Your task to perform on an android device: toggle translation in the chrome app Image 0: 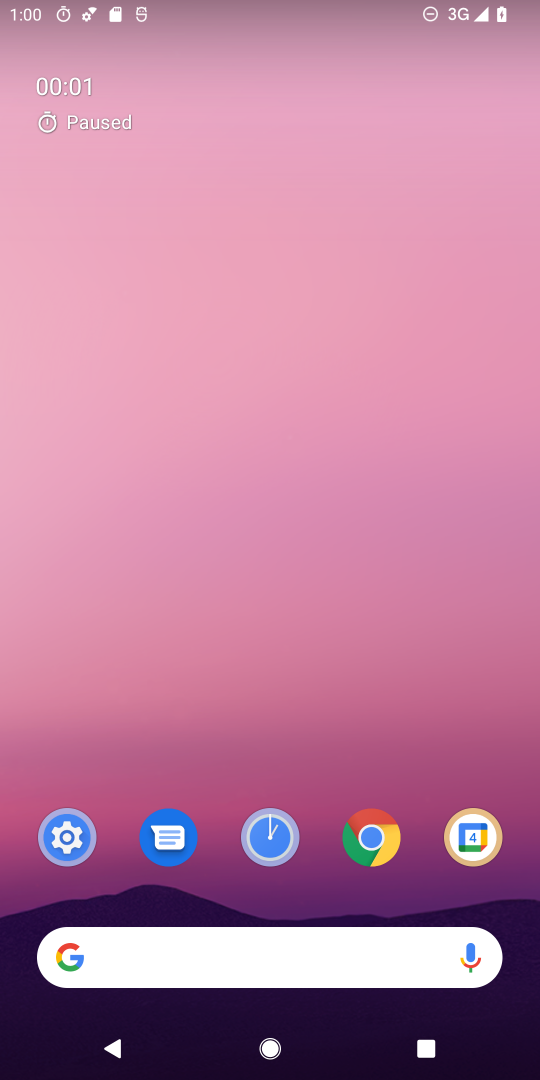
Step 0: drag from (465, 913) to (233, 28)
Your task to perform on an android device: toggle translation in the chrome app Image 1: 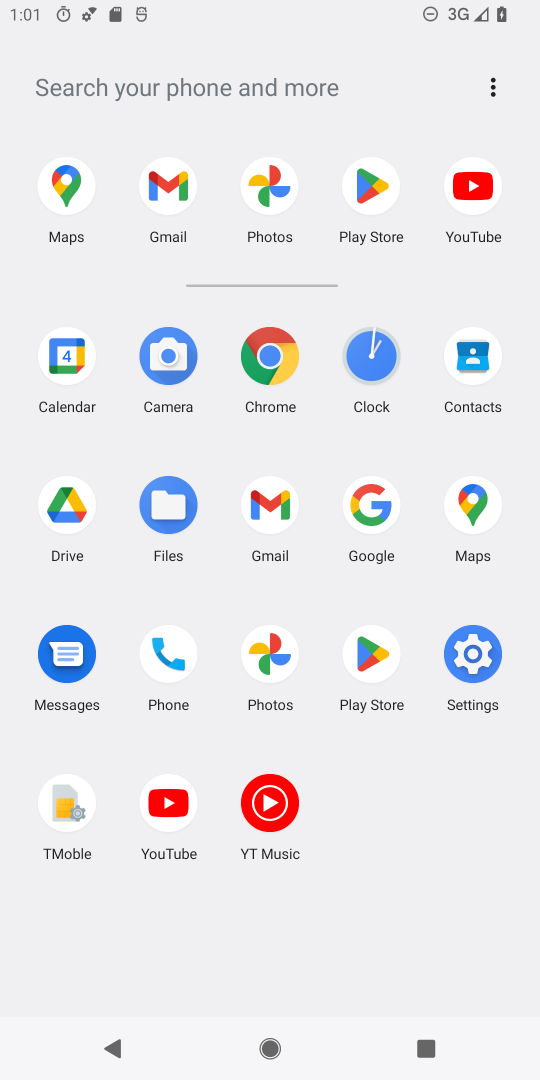
Step 1: click (259, 381)
Your task to perform on an android device: toggle translation in the chrome app Image 2: 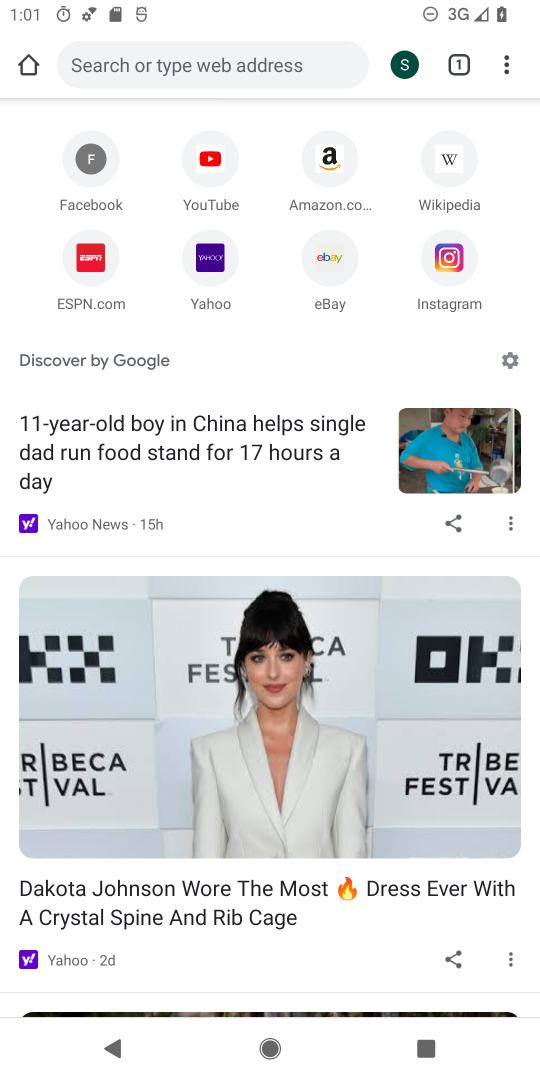
Step 2: click (495, 71)
Your task to perform on an android device: toggle translation in the chrome app Image 3: 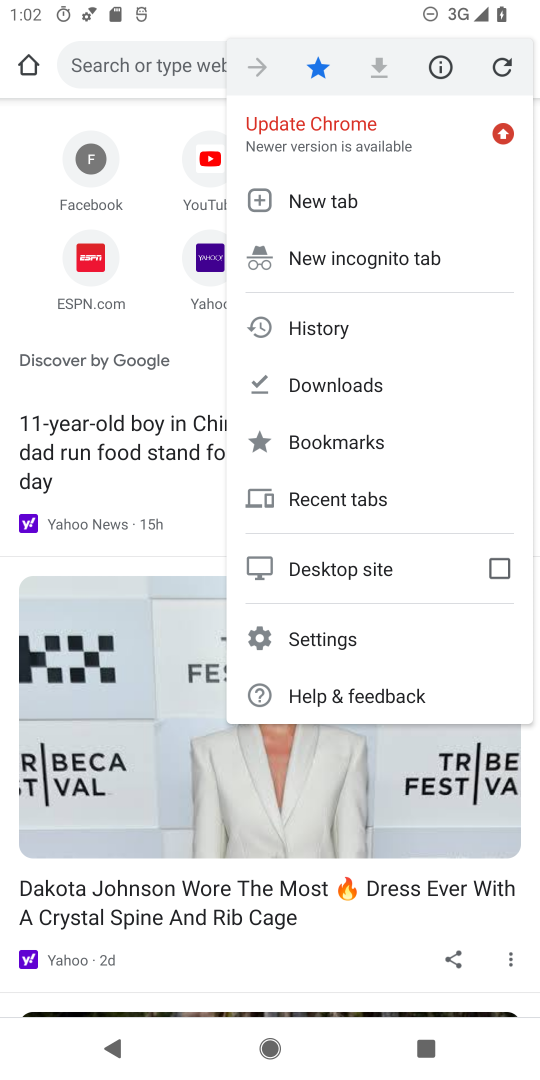
Step 3: click (335, 655)
Your task to perform on an android device: toggle translation in the chrome app Image 4: 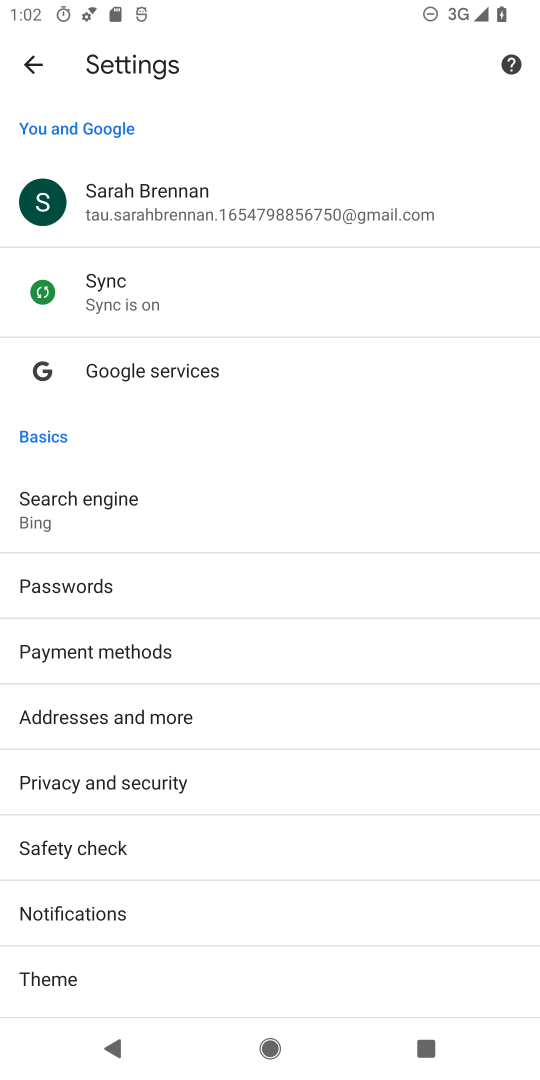
Step 4: drag from (133, 881) to (196, 374)
Your task to perform on an android device: toggle translation in the chrome app Image 5: 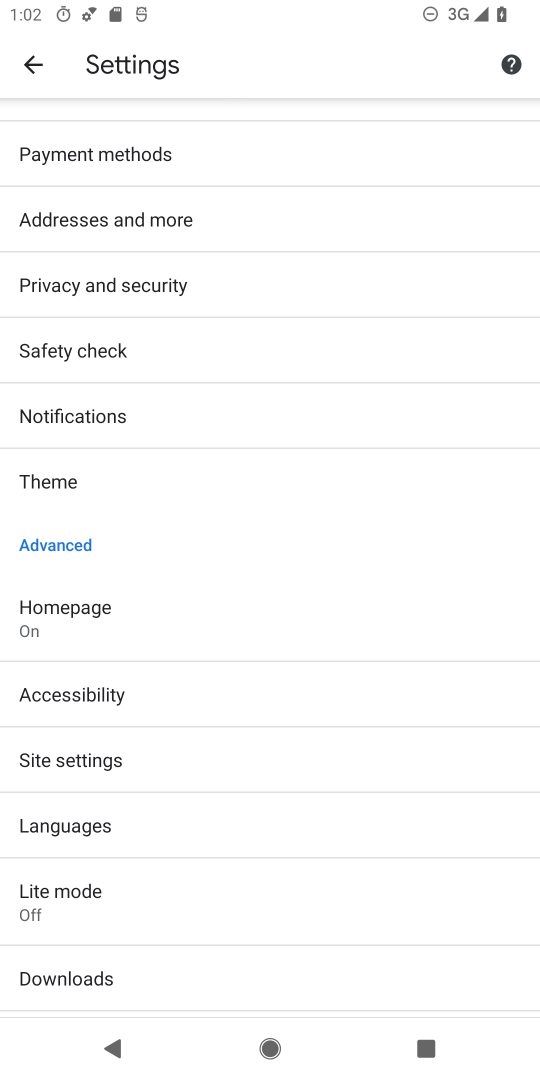
Step 5: click (147, 826)
Your task to perform on an android device: toggle translation in the chrome app Image 6: 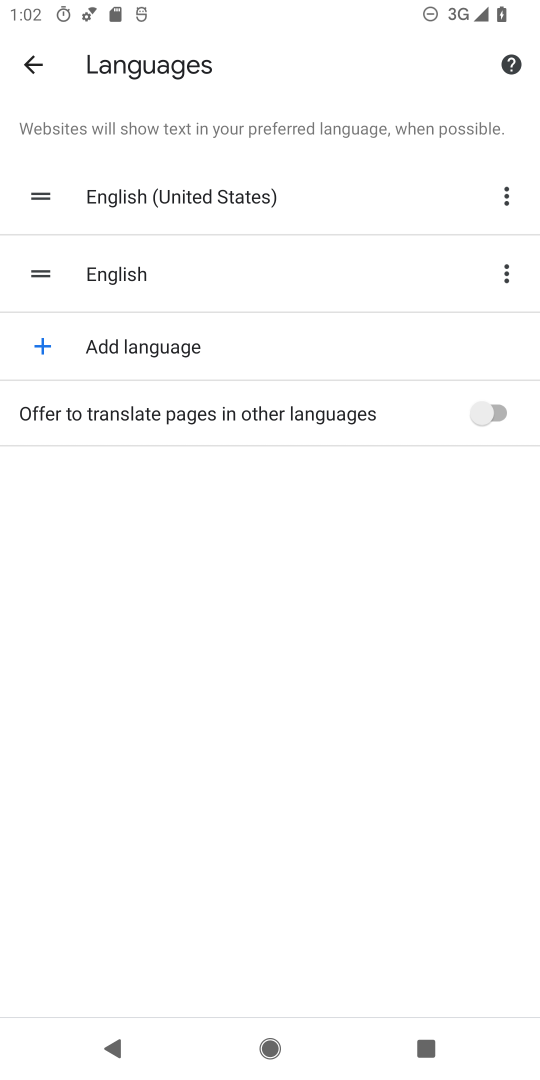
Step 6: click (497, 412)
Your task to perform on an android device: toggle translation in the chrome app Image 7: 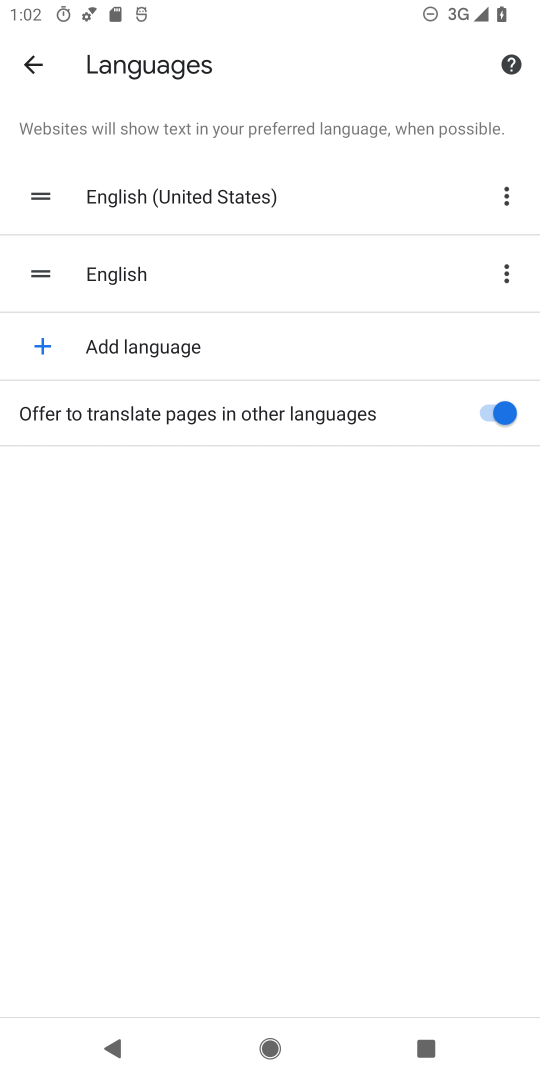
Step 7: task complete